Your task to perform on an android device: Open Google Maps Image 0: 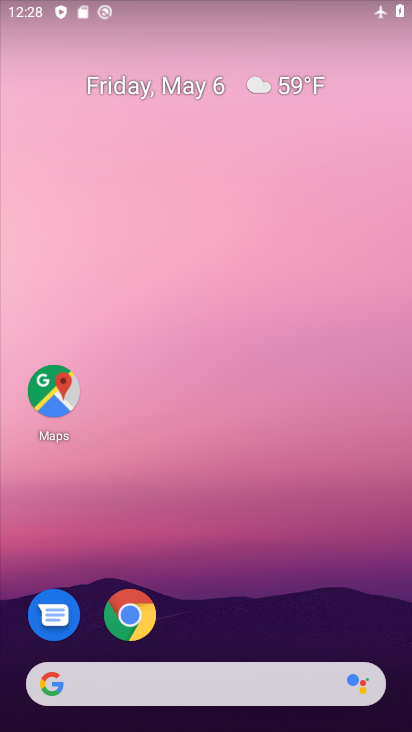
Step 0: drag from (254, 579) to (280, 17)
Your task to perform on an android device: Open Google Maps Image 1: 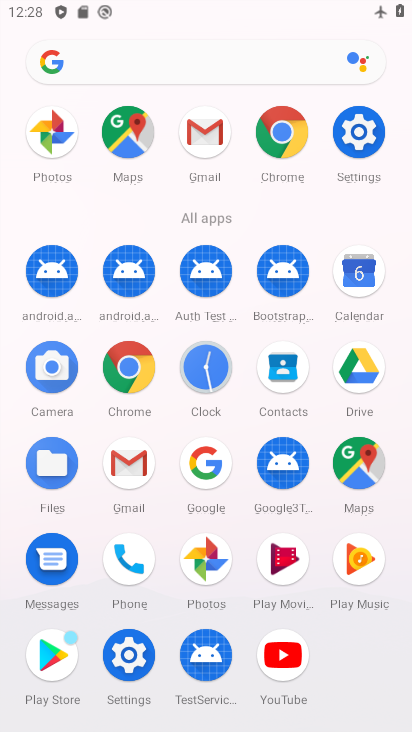
Step 1: click (119, 133)
Your task to perform on an android device: Open Google Maps Image 2: 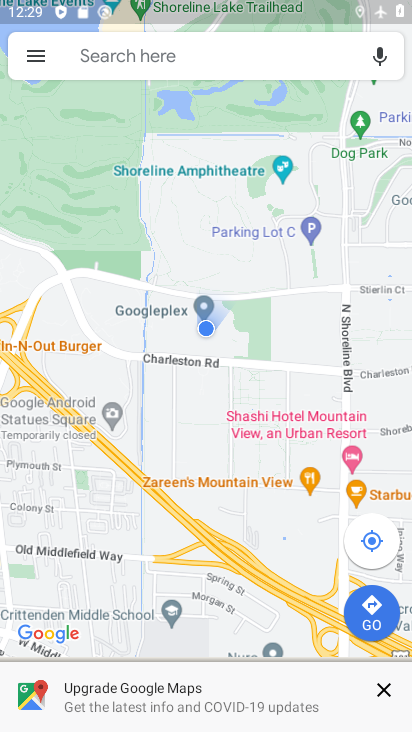
Step 2: task complete